Your task to perform on an android device: Go to Yahoo.com Image 0: 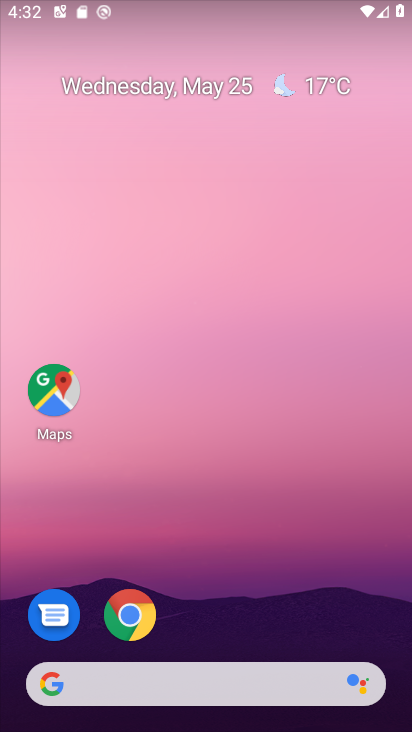
Step 0: click (119, 617)
Your task to perform on an android device: Go to Yahoo.com Image 1: 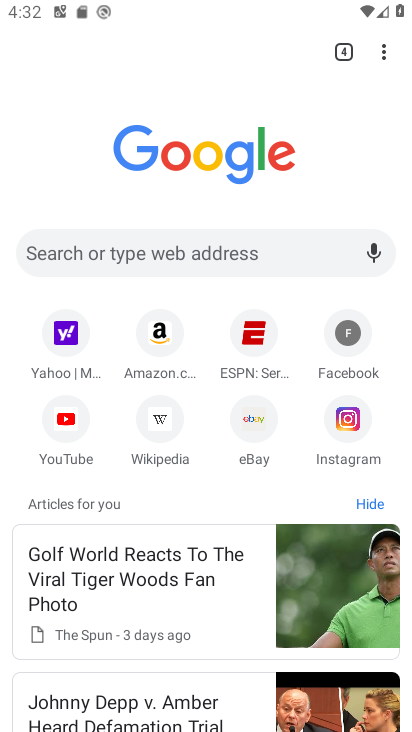
Step 1: click (68, 326)
Your task to perform on an android device: Go to Yahoo.com Image 2: 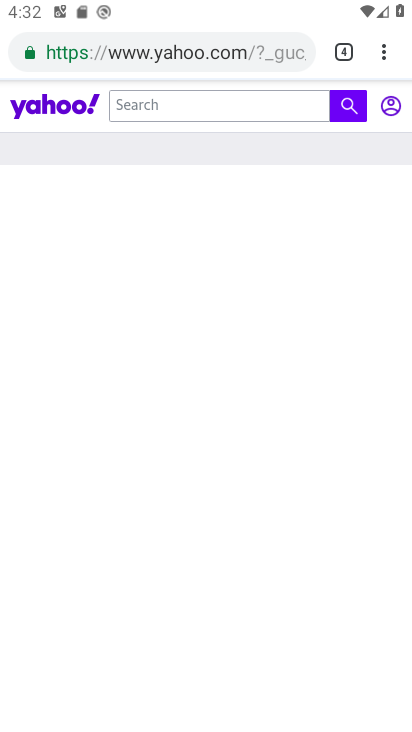
Step 2: task complete